Your task to perform on an android device: Open ESPN.com Image 0: 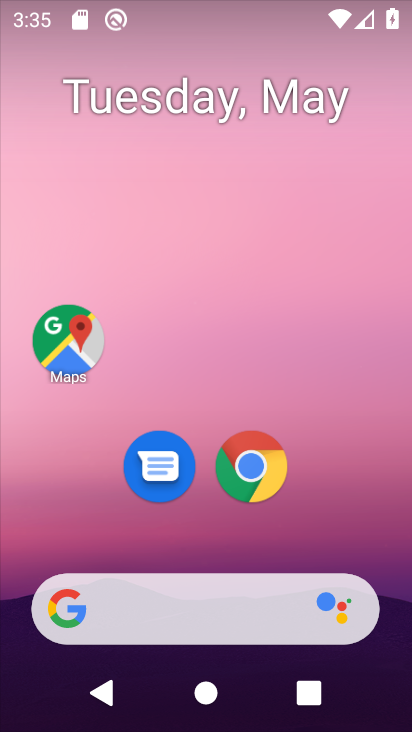
Step 0: drag from (301, 516) to (265, 62)
Your task to perform on an android device: Open ESPN.com Image 1: 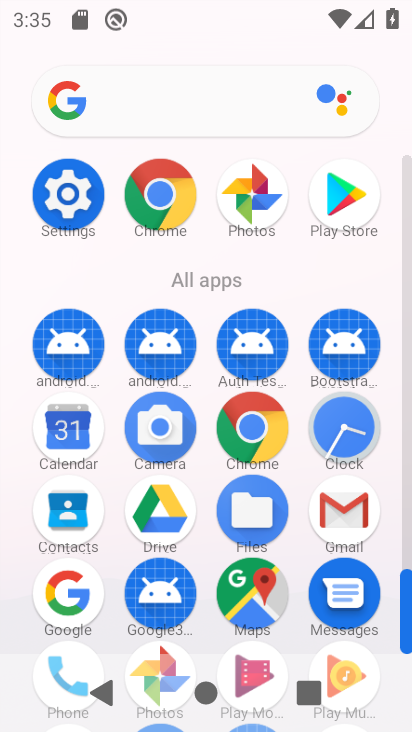
Step 1: click (248, 413)
Your task to perform on an android device: Open ESPN.com Image 2: 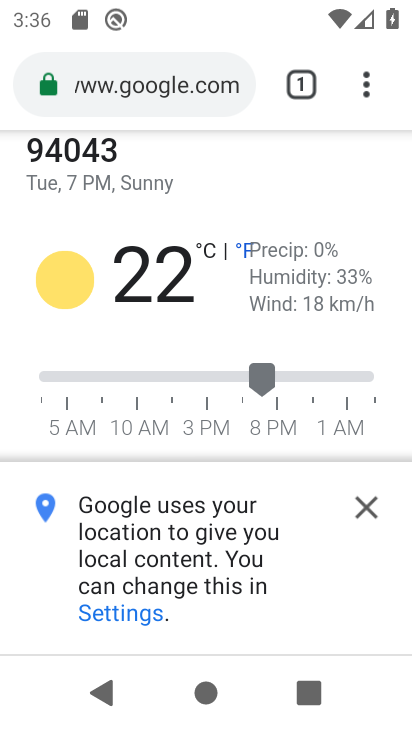
Step 2: click (172, 82)
Your task to perform on an android device: Open ESPN.com Image 3: 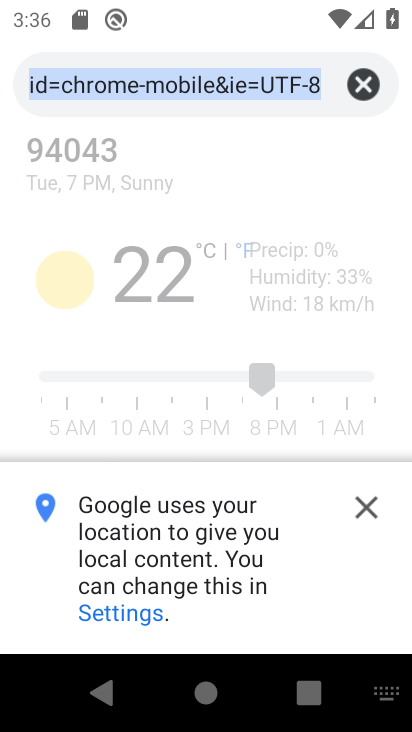
Step 3: click (357, 86)
Your task to perform on an android device: Open ESPN.com Image 4: 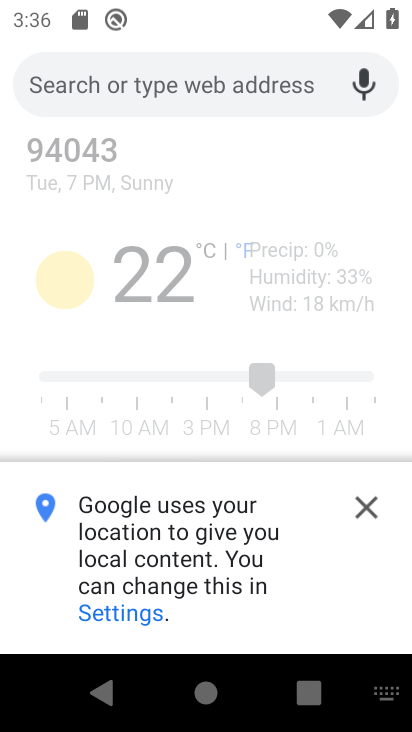
Step 4: drag from (276, 730) to (354, 730)
Your task to perform on an android device: Open ESPN.com Image 5: 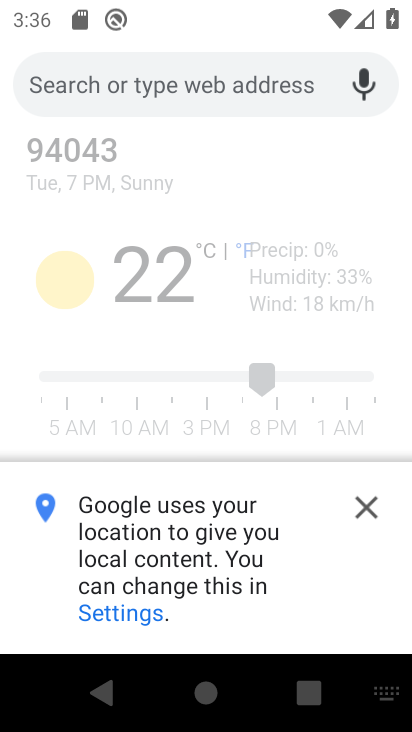
Step 5: type " ESPN.com"
Your task to perform on an android device: Open ESPN.com Image 6: 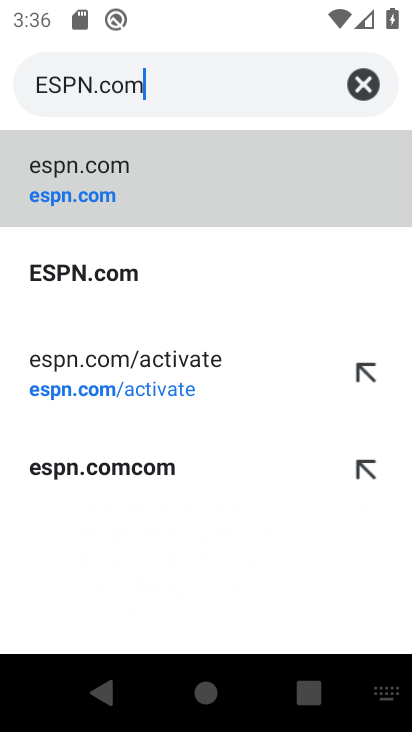
Step 6: click (81, 196)
Your task to perform on an android device: Open ESPN.com Image 7: 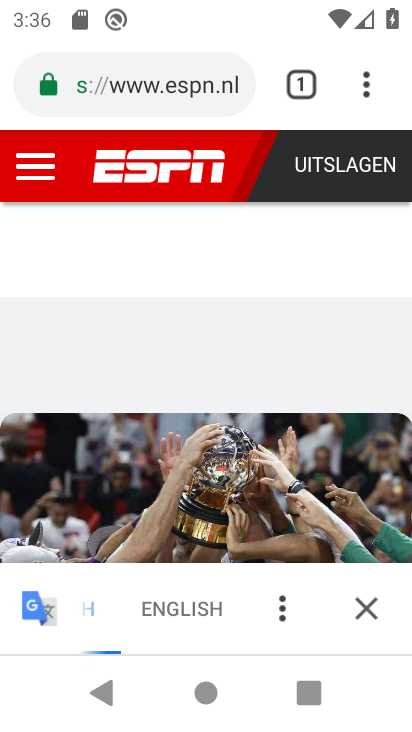
Step 7: task complete